Your task to perform on an android device: turn off notifications settings in the gmail app Image 0: 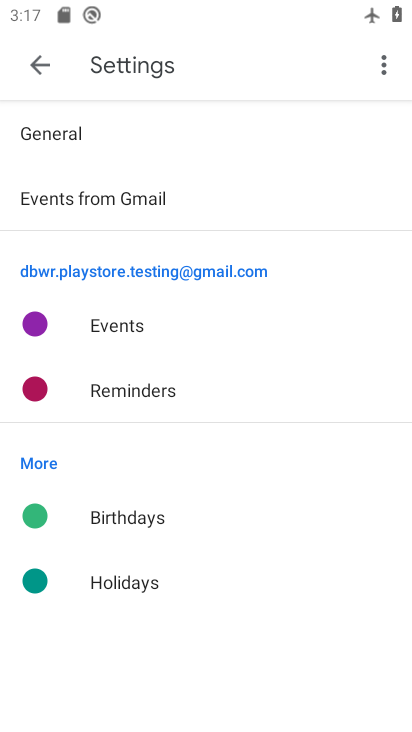
Step 0: press back button
Your task to perform on an android device: turn off notifications settings in the gmail app Image 1: 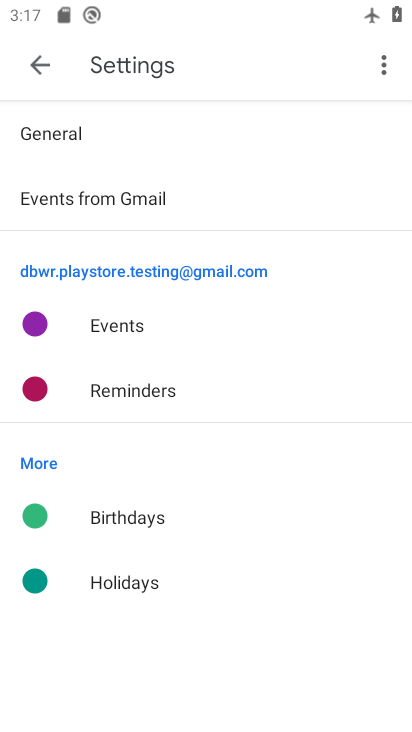
Step 1: press back button
Your task to perform on an android device: turn off notifications settings in the gmail app Image 2: 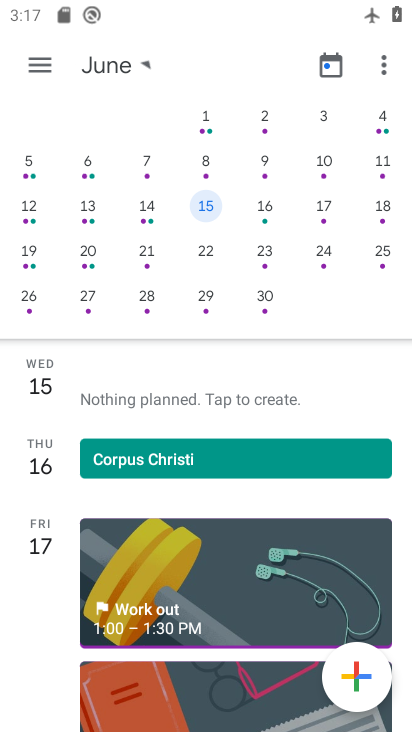
Step 2: press back button
Your task to perform on an android device: turn off notifications settings in the gmail app Image 3: 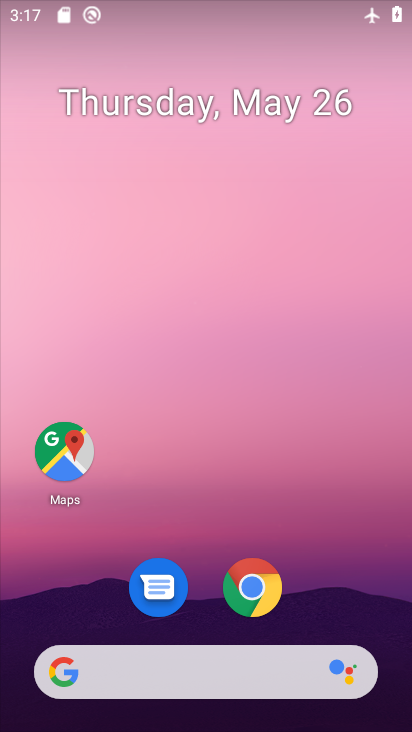
Step 3: drag from (287, 584) to (251, 231)
Your task to perform on an android device: turn off notifications settings in the gmail app Image 4: 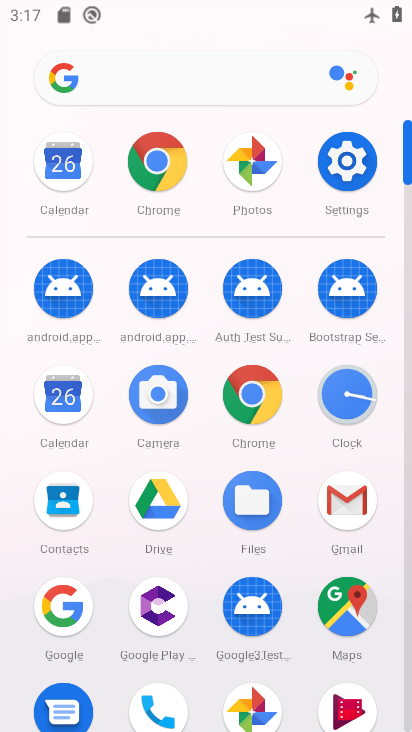
Step 4: click (344, 479)
Your task to perform on an android device: turn off notifications settings in the gmail app Image 5: 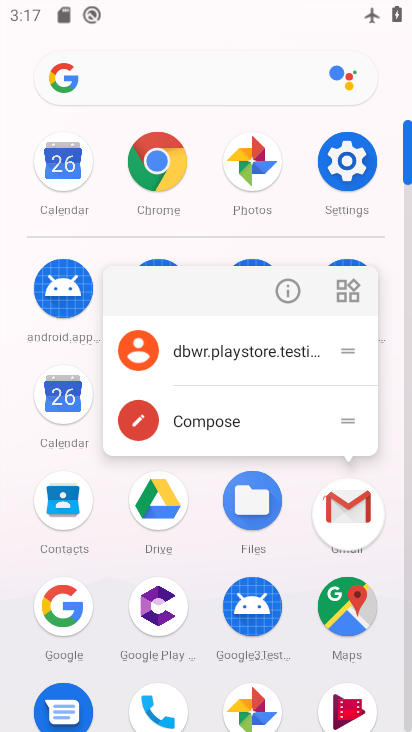
Step 5: click (346, 494)
Your task to perform on an android device: turn off notifications settings in the gmail app Image 6: 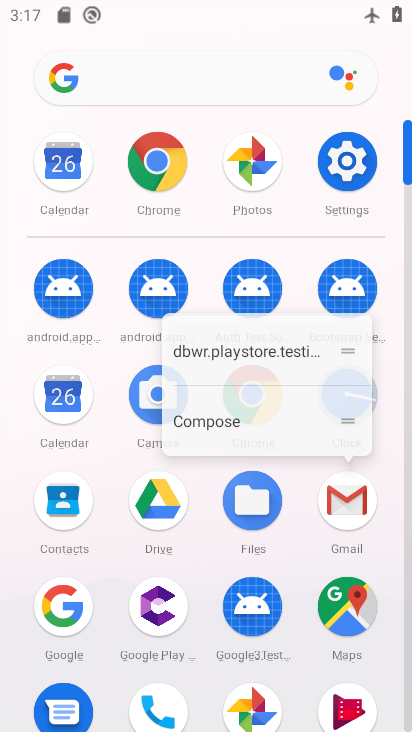
Step 6: click (346, 494)
Your task to perform on an android device: turn off notifications settings in the gmail app Image 7: 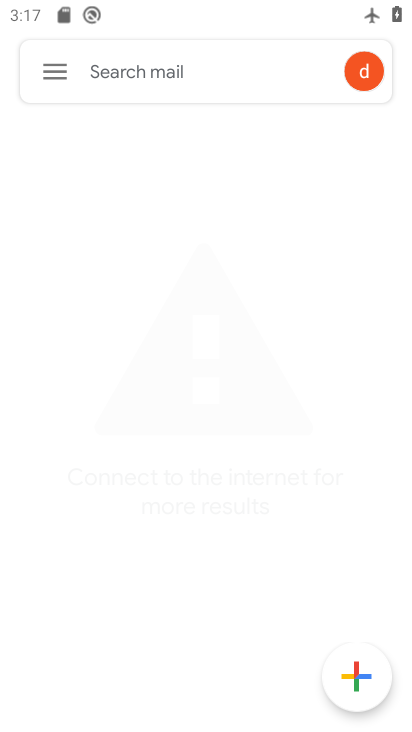
Step 7: click (340, 504)
Your task to perform on an android device: turn off notifications settings in the gmail app Image 8: 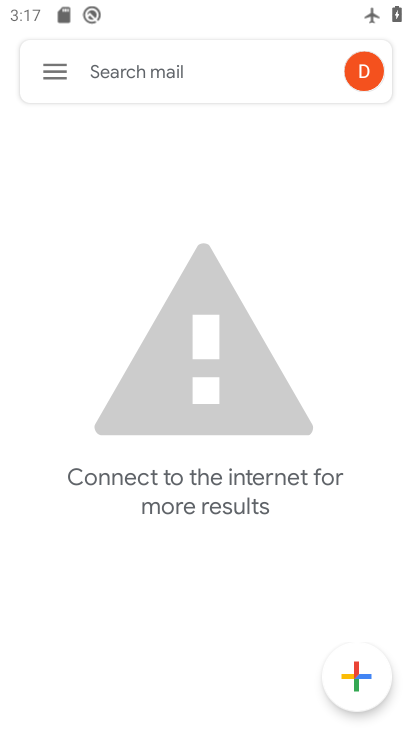
Step 8: click (54, 76)
Your task to perform on an android device: turn off notifications settings in the gmail app Image 9: 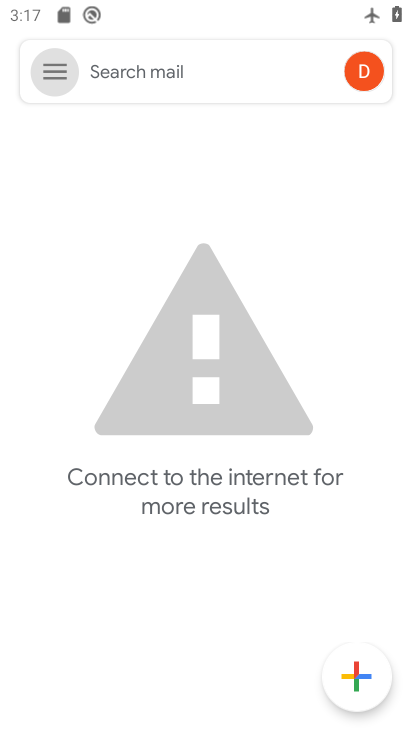
Step 9: click (55, 75)
Your task to perform on an android device: turn off notifications settings in the gmail app Image 10: 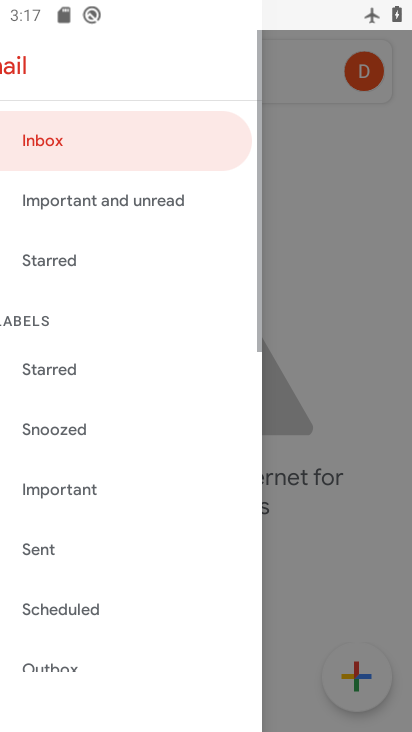
Step 10: click (59, 75)
Your task to perform on an android device: turn off notifications settings in the gmail app Image 11: 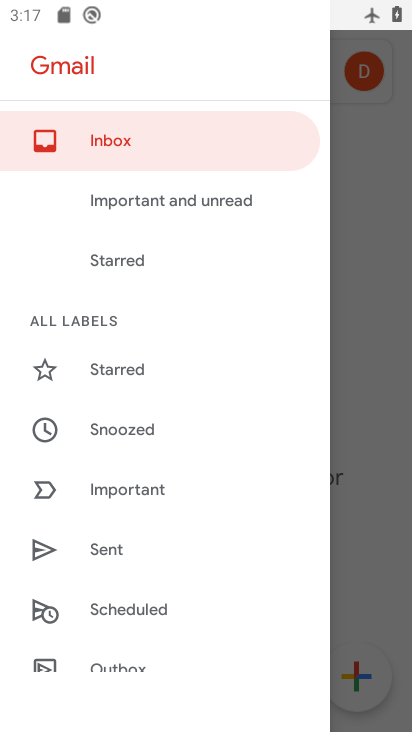
Step 11: drag from (144, 478) to (120, 61)
Your task to perform on an android device: turn off notifications settings in the gmail app Image 12: 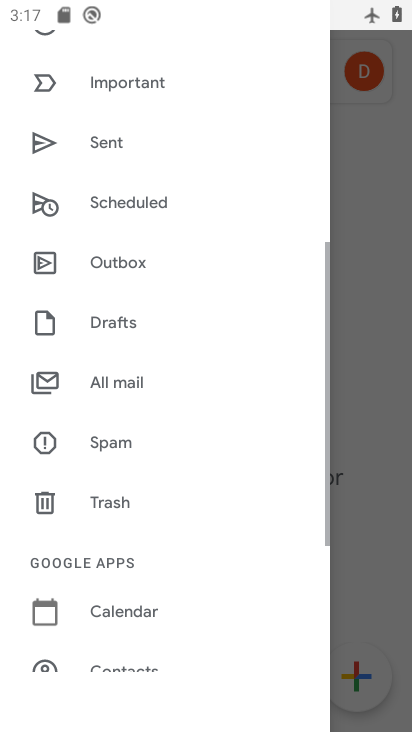
Step 12: drag from (57, 425) to (108, 127)
Your task to perform on an android device: turn off notifications settings in the gmail app Image 13: 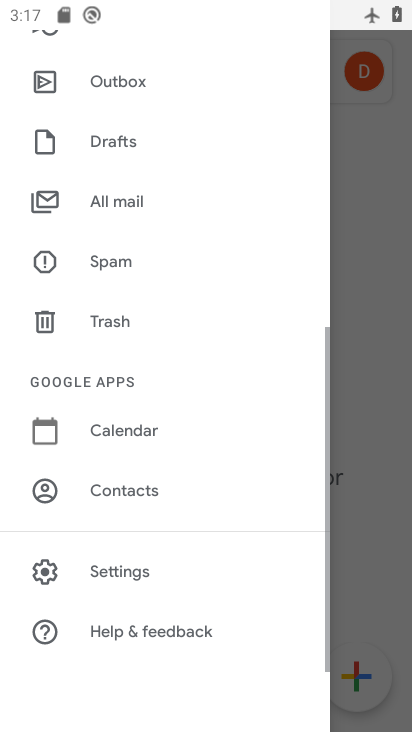
Step 13: drag from (153, 405) to (180, 110)
Your task to perform on an android device: turn off notifications settings in the gmail app Image 14: 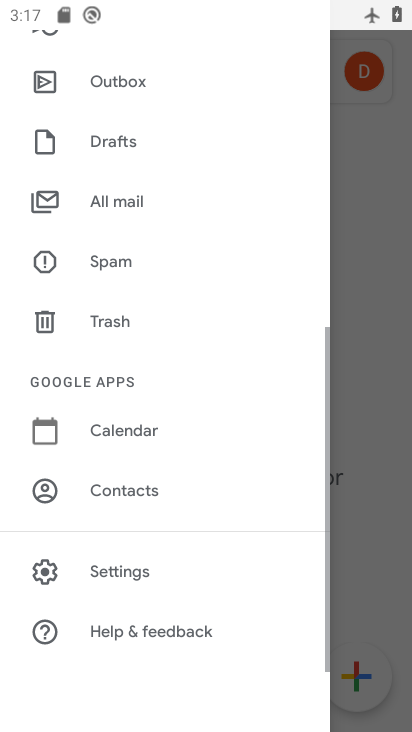
Step 14: click (123, 570)
Your task to perform on an android device: turn off notifications settings in the gmail app Image 15: 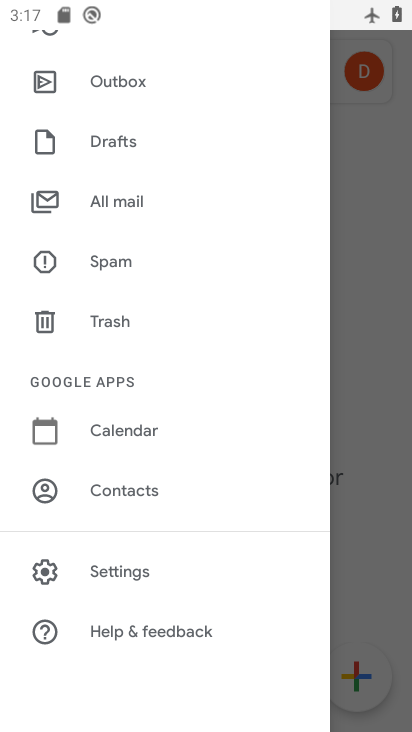
Step 15: click (127, 567)
Your task to perform on an android device: turn off notifications settings in the gmail app Image 16: 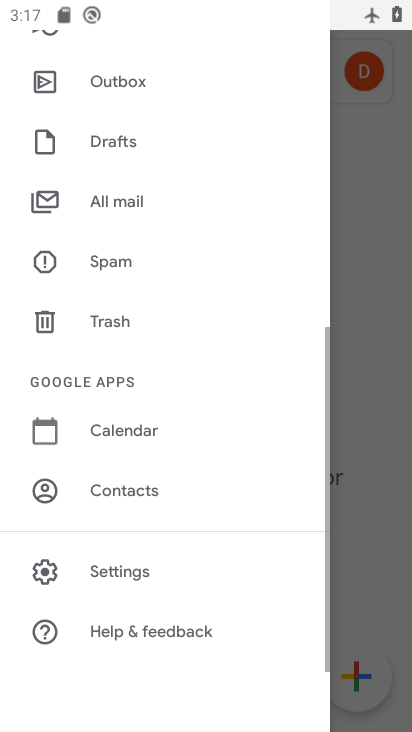
Step 16: click (127, 567)
Your task to perform on an android device: turn off notifications settings in the gmail app Image 17: 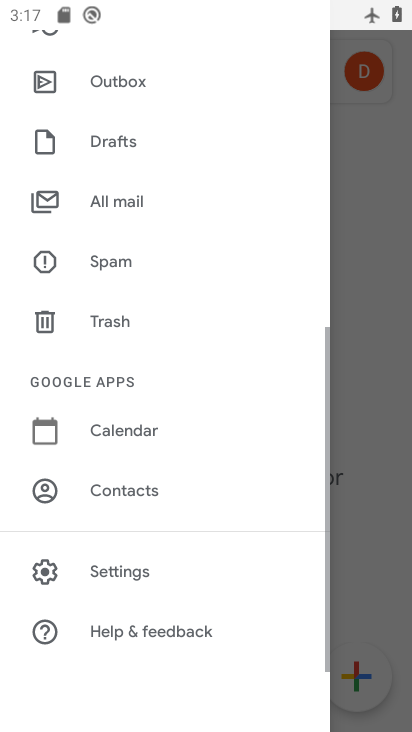
Step 17: click (124, 577)
Your task to perform on an android device: turn off notifications settings in the gmail app Image 18: 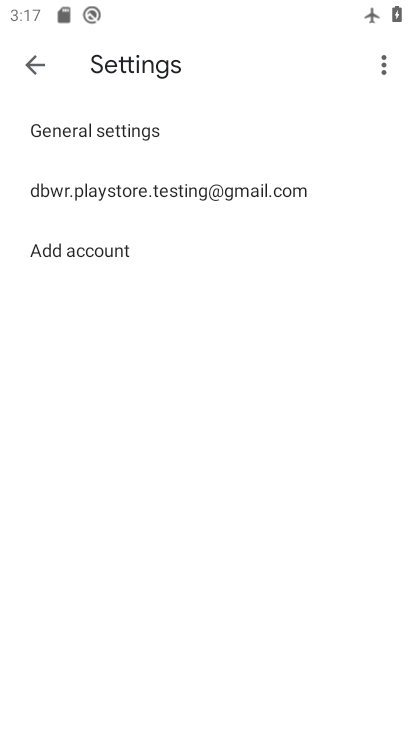
Step 18: click (94, 190)
Your task to perform on an android device: turn off notifications settings in the gmail app Image 19: 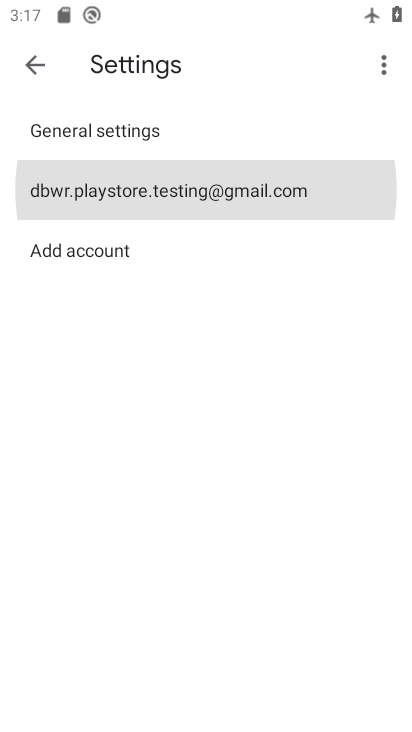
Step 19: click (95, 190)
Your task to perform on an android device: turn off notifications settings in the gmail app Image 20: 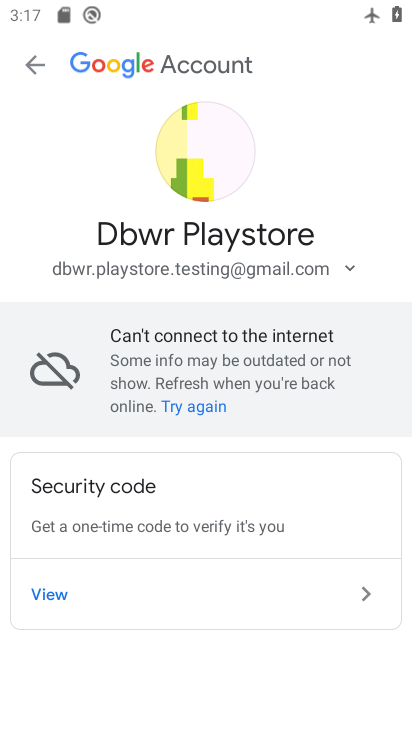
Step 20: click (18, 56)
Your task to perform on an android device: turn off notifications settings in the gmail app Image 21: 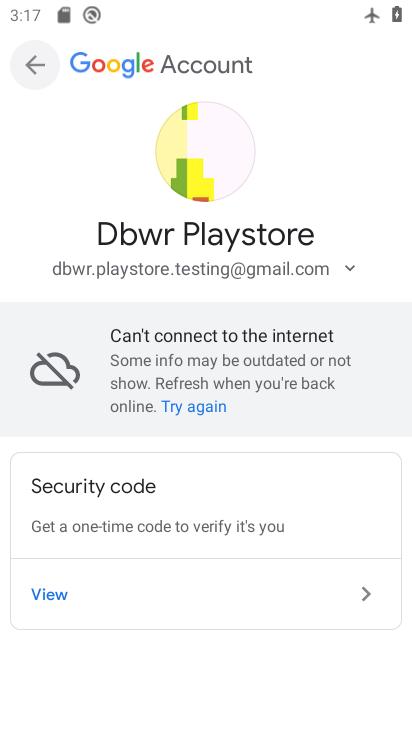
Step 21: click (34, 58)
Your task to perform on an android device: turn off notifications settings in the gmail app Image 22: 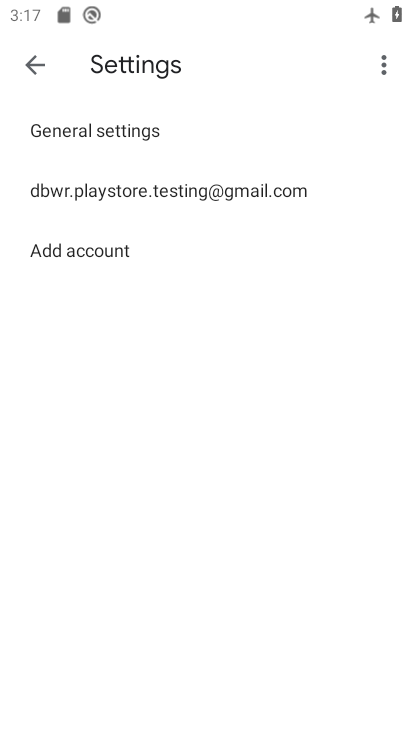
Step 22: click (111, 183)
Your task to perform on an android device: turn off notifications settings in the gmail app Image 23: 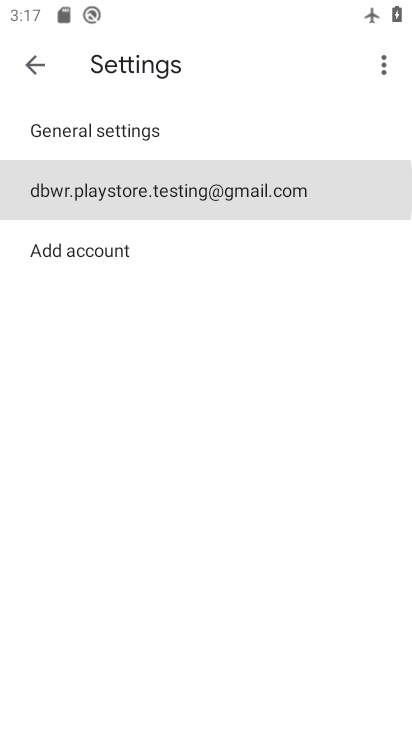
Step 23: click (115, 183)
Your task to perform on an android device: turn off notifications settings in the gmail app Image 24: 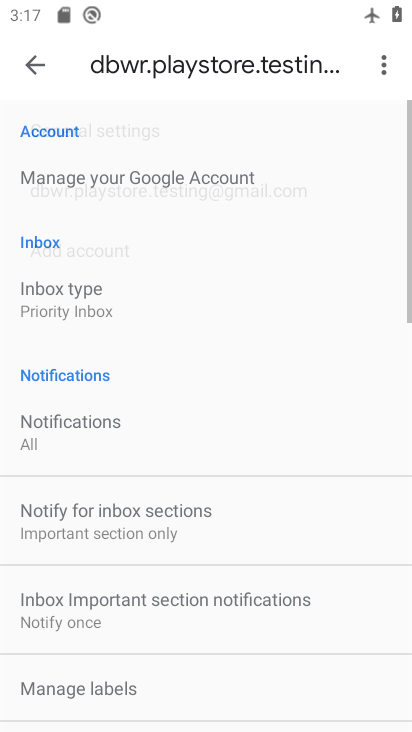
Step 24: click (117, 183)
Your task to perform on an android device: turn off notifications settings in the gmail app Image 25: 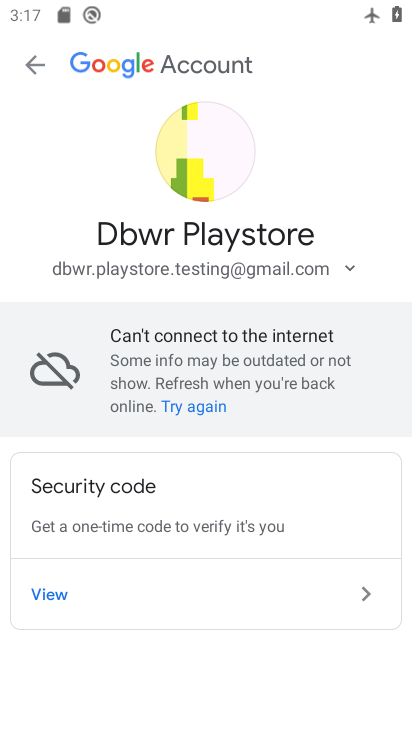
Step 25: click (29, 74)
Your task to perform on an android device: turn off notifications settings in the gmail app Image 26: 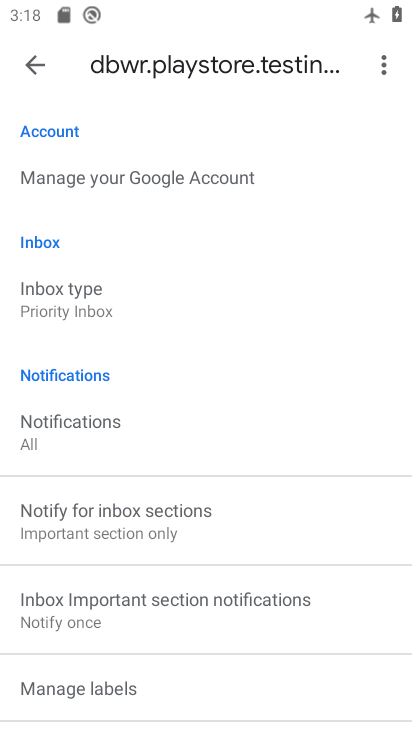
Step 26: click (53, 418)
Your task to perform on an android device: turn off notifications settings in the gmail app Image 27: 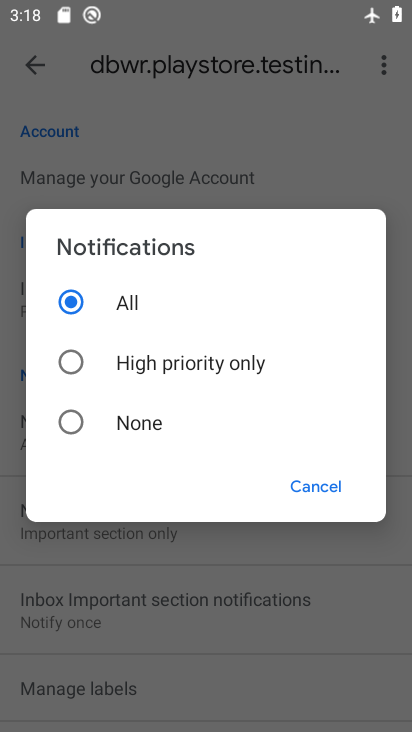
Step 27: click (63, 419)
Your task to perform on an android device: turn off notifications settings in the gmail app Image 28: 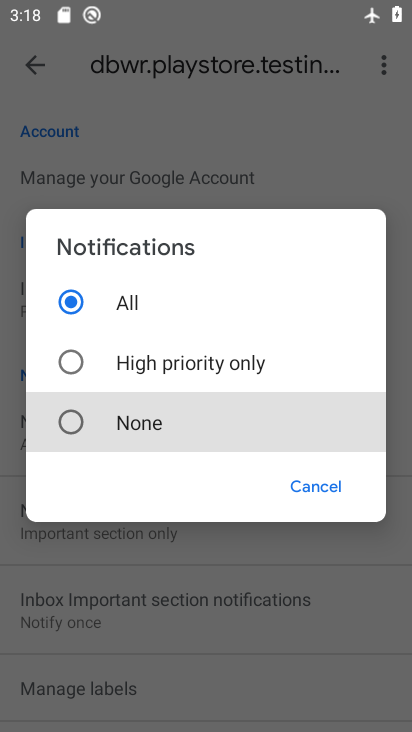
Step 28: click (64, 420)
Your task to perform on an android device: turn off notifications settings in the gmail app Image 29: 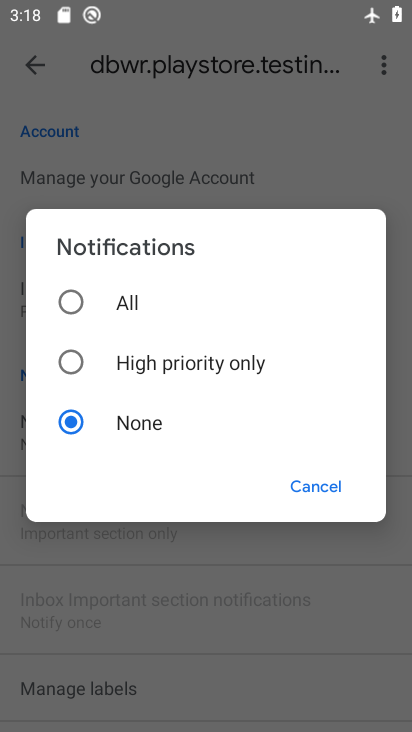
Step 29: task complete